Your task to perform on an android device: turn pop-ups on in chrome Image 0: 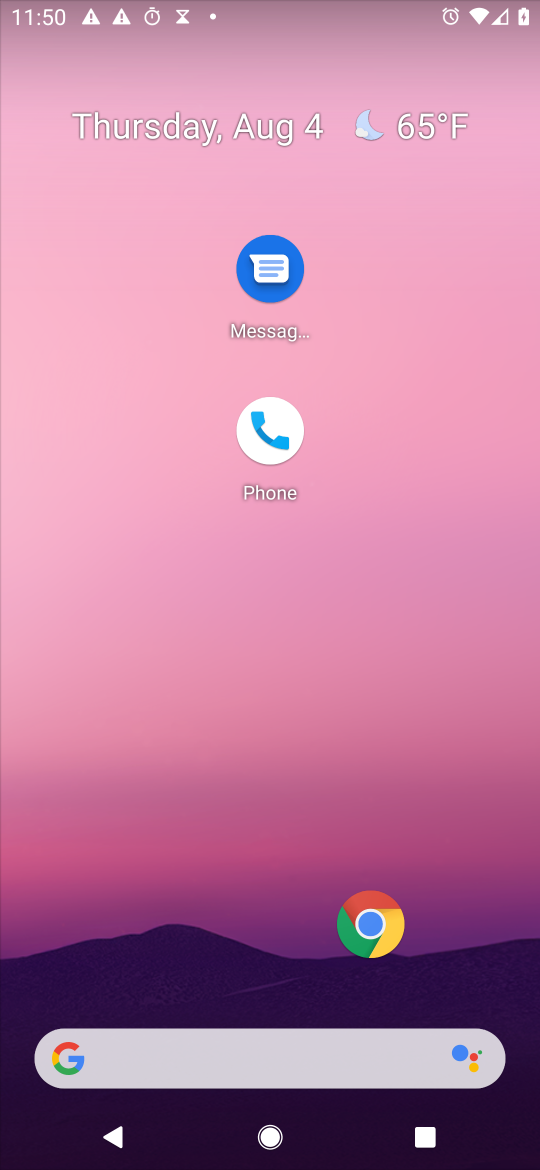
Step 0: drag from (233, 978) to (416, 414)
Your task to perform on an android device: turn pop-ups on in chrome Image 1: 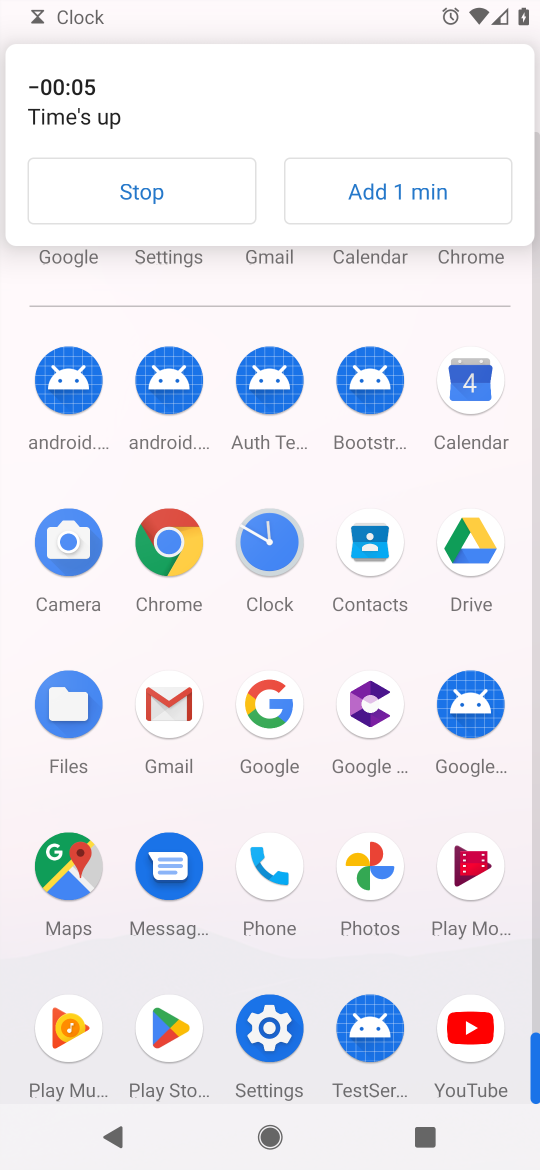
Step 1: click (156, 188)
Your task to perform on an android device: turn pop-ups on in chrome Image 2: 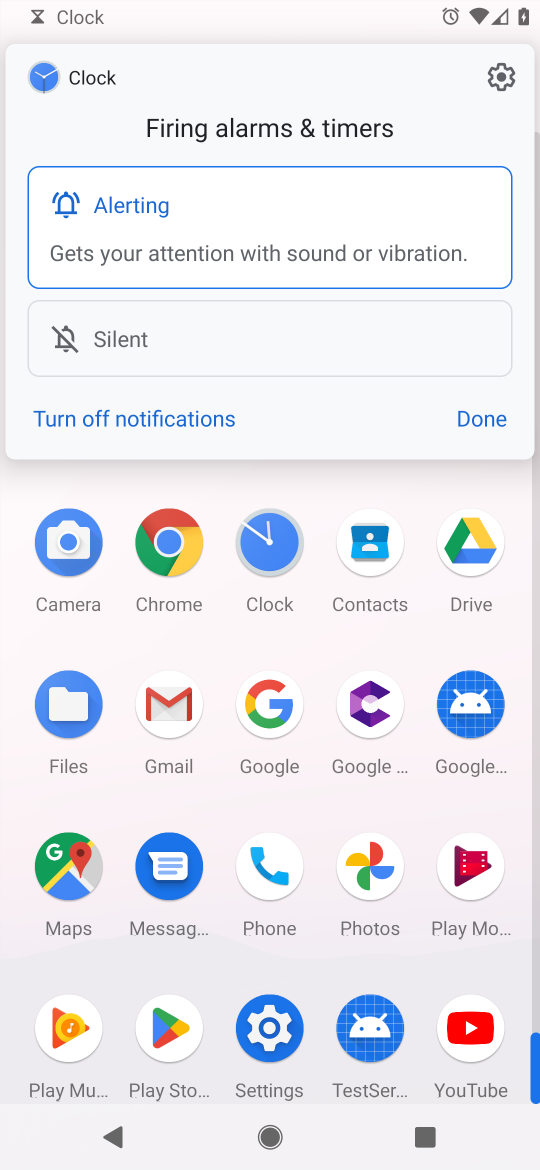
Step 2: click (466, 420)
Your task to perform on an android device: turn pop-ups on in chrome Image 3: 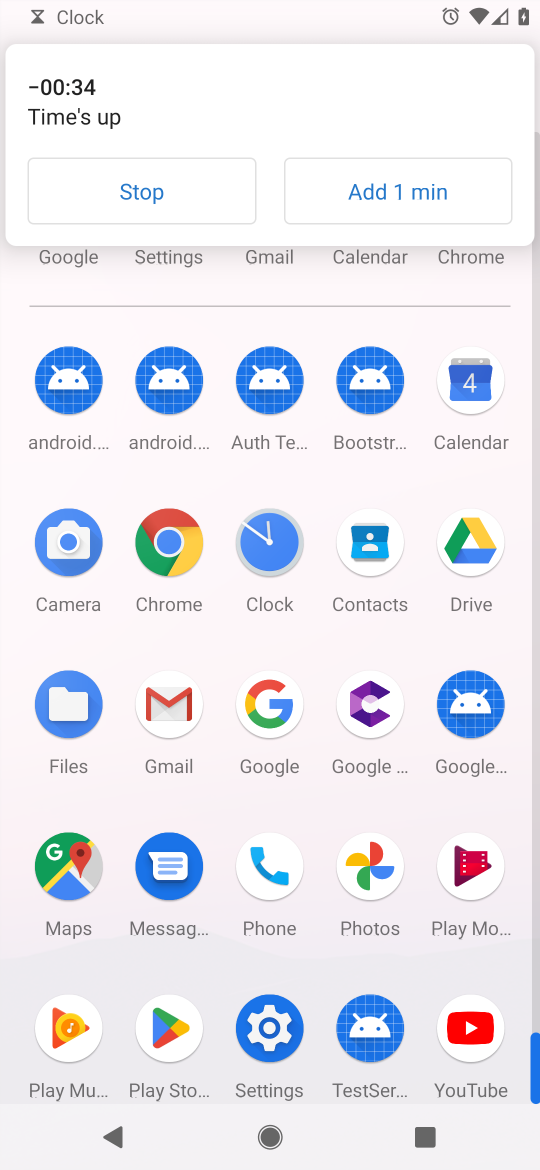
Step 3: click (141, 184)
Your task to perform on an android device: turn pop-ups on in chrome Image 4: 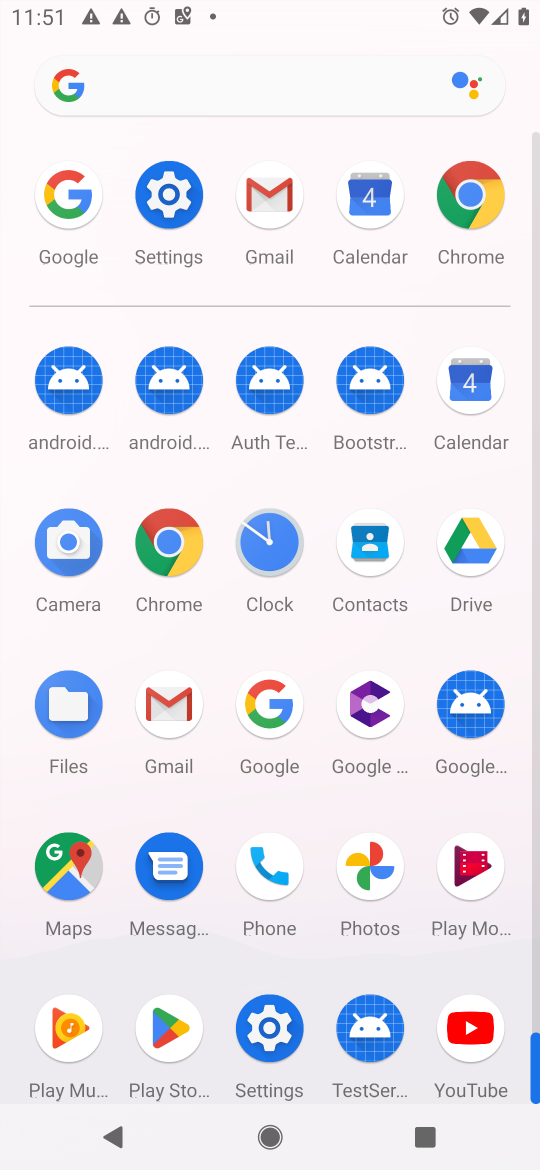
Step 4: click (167, 525)
Your task to perform on an android device: turn pop-ups on in chrome Image 5: 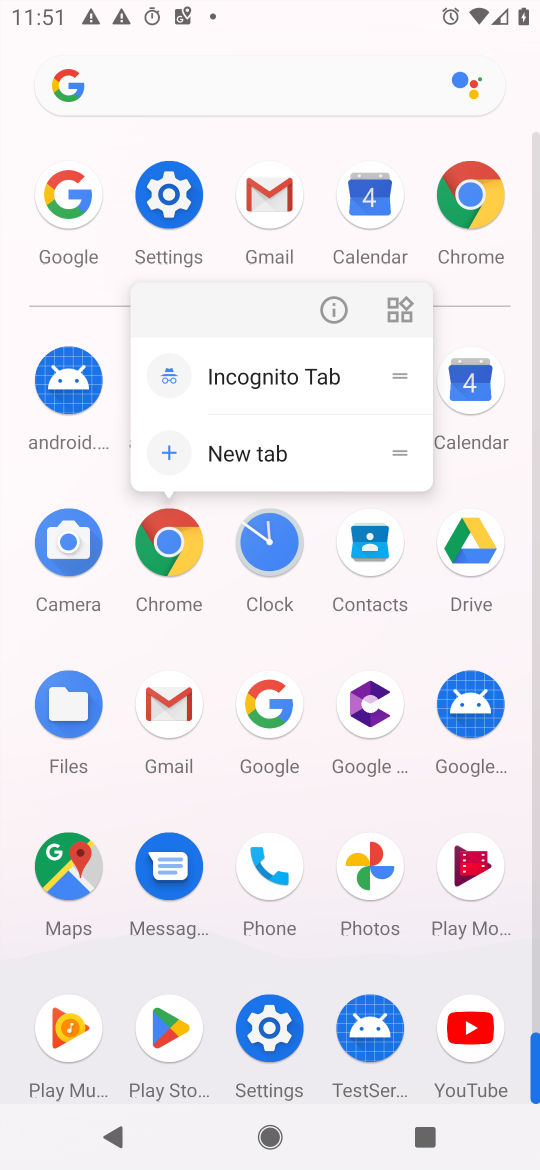
Step 5: click (328, 303)
Your task to perform on an android device: turn pop-ups on in chrome Image 6: 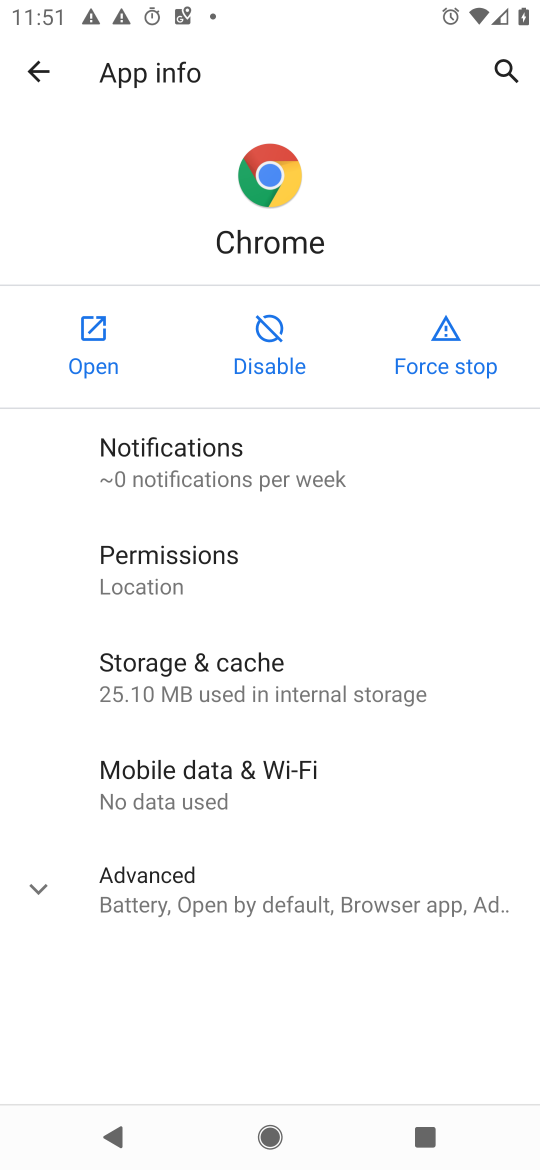
Step 6: click (120, 344)
Your task to perform on an android device: turn pop-ups on in chrome Image 7: 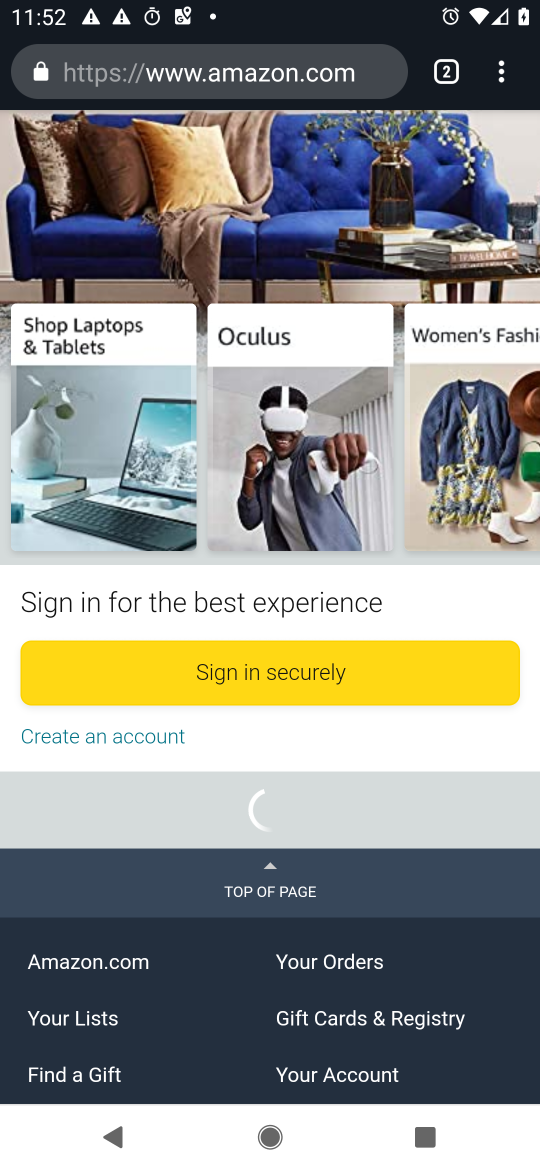
Step 7: drag from (501, 83) to (249, 862)
Your task to perform on an android device: turn pop-ups on in chrome Image 8: 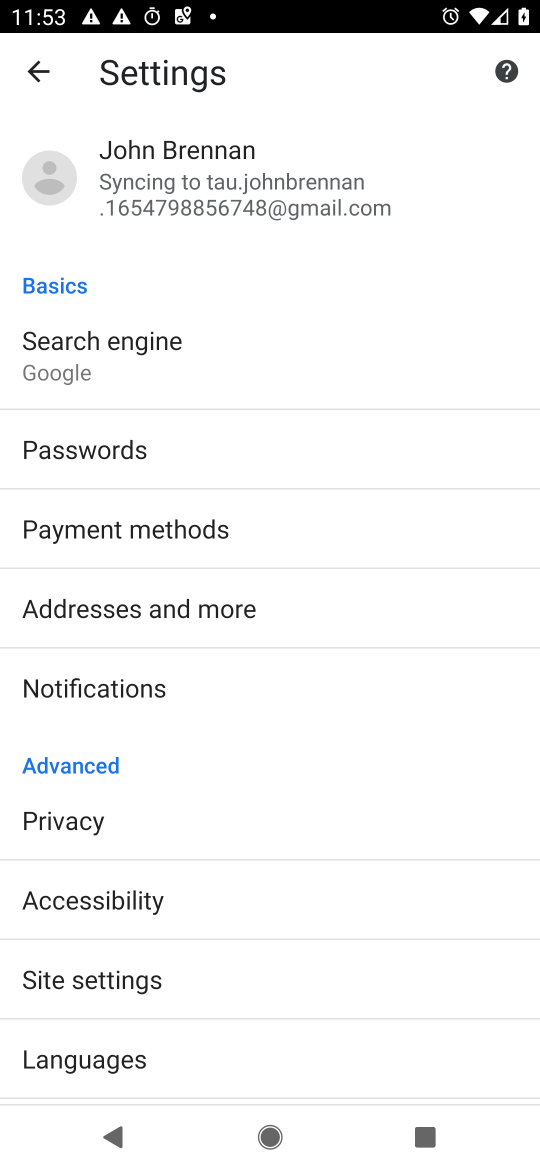
Step 8: click (129, 978)
Your task to perform on an android device: turn pop-ups on in chrome Image 9: 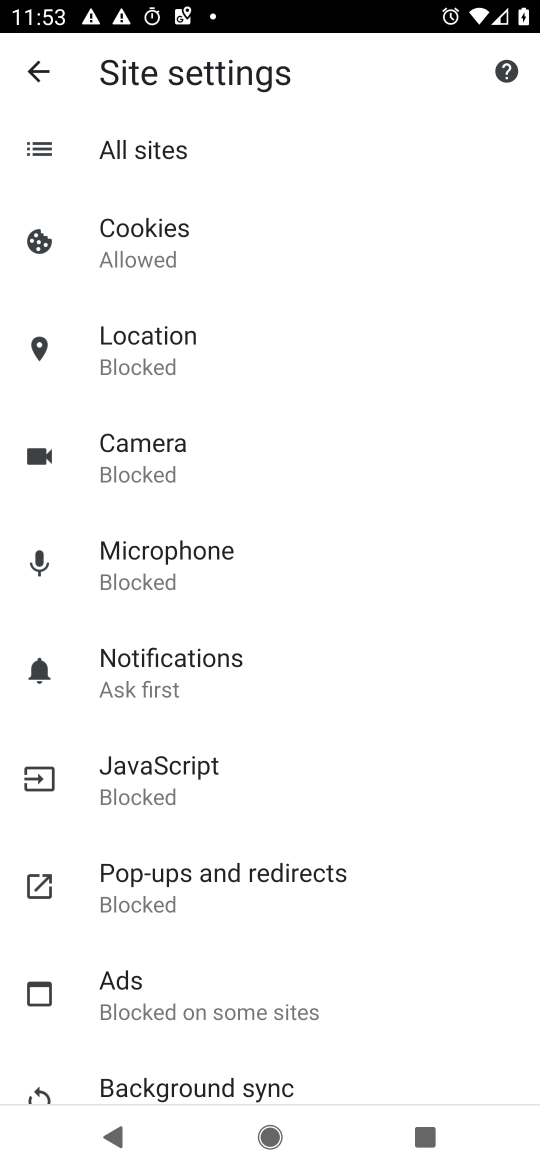
Step 9: click (198, 882)
Your task to perform on an android device: turn pop-ups on in chrome Image 10: 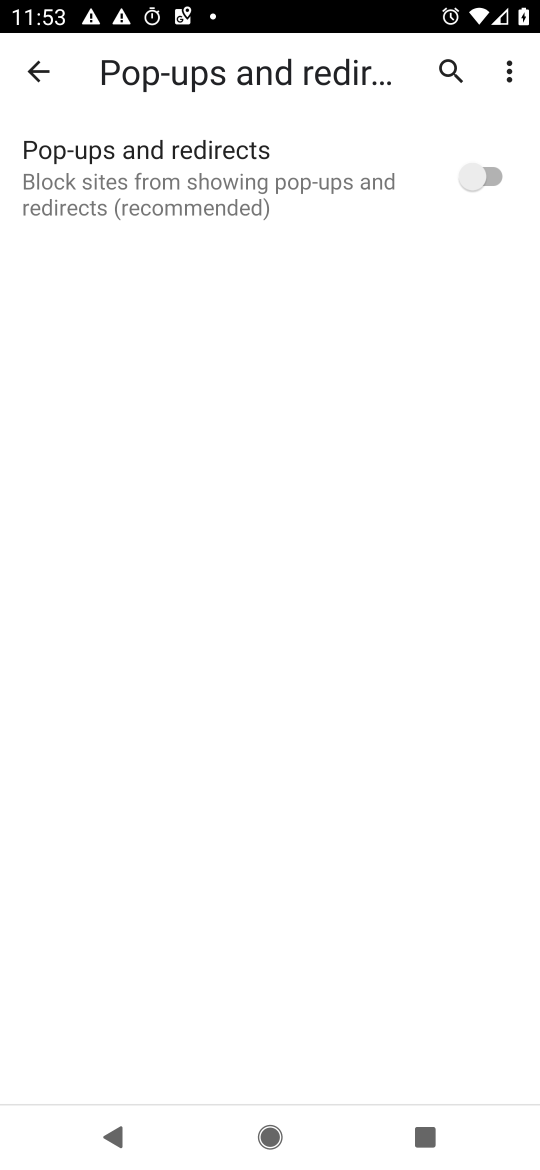
Step 10: drag from (224, 835) to (371, 369)
Your task to perform on an android device: turn pop-ups on in chrome Image 11: 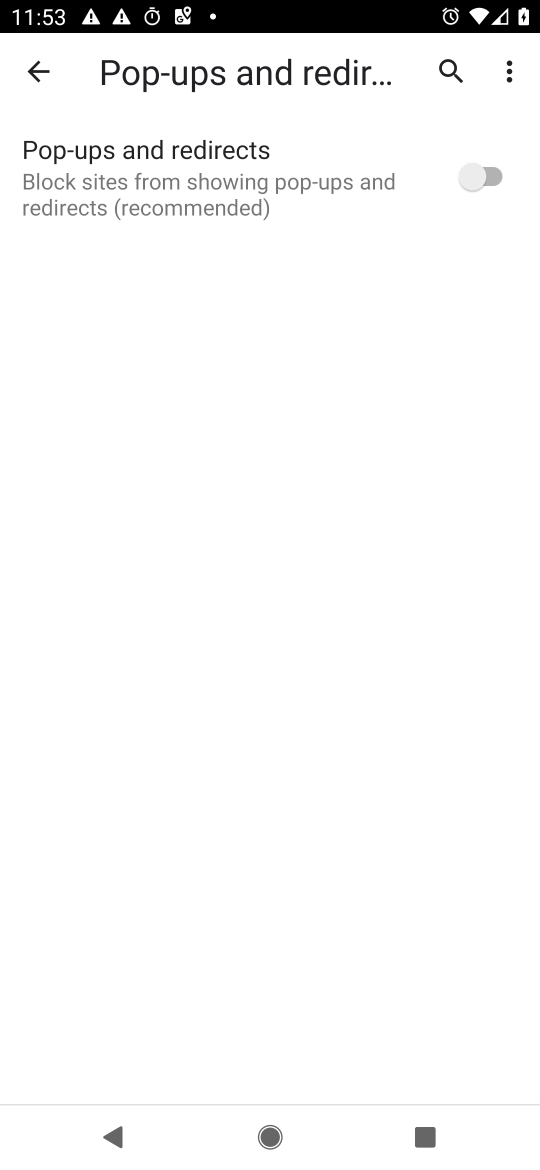
Step 11: click (464, 144)
Your task to perform on an android device: turn pop-ups on in chrome Image 12: 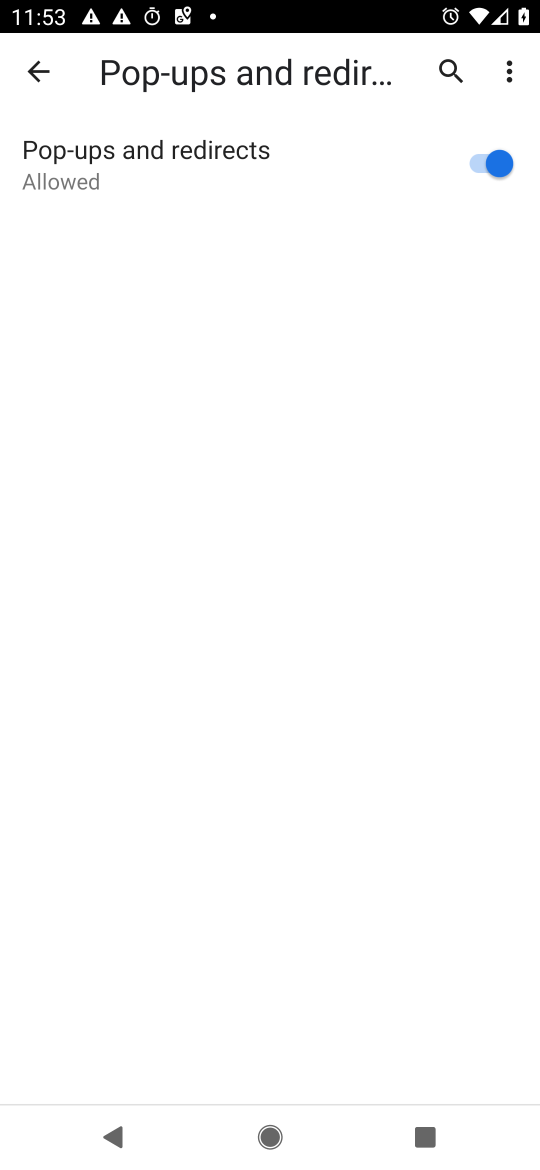
Step 12: task complete